Your task to perform on an android device: Open Google Chrome Image 0: 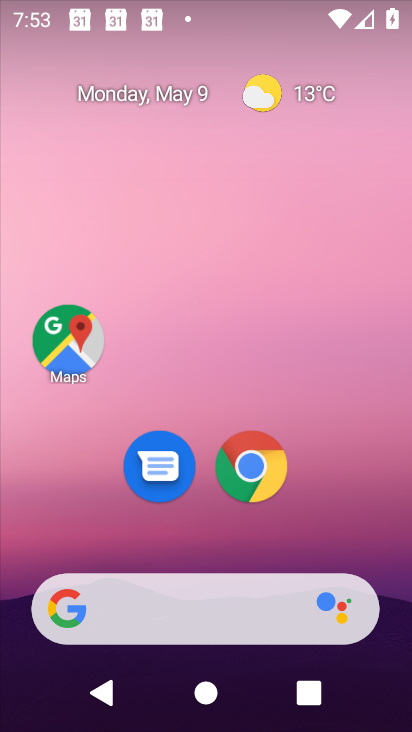
Step 0: drag from (317, 549) to (308, 277)
Your task to perform on an android device: Open Google Chrome Image 1: 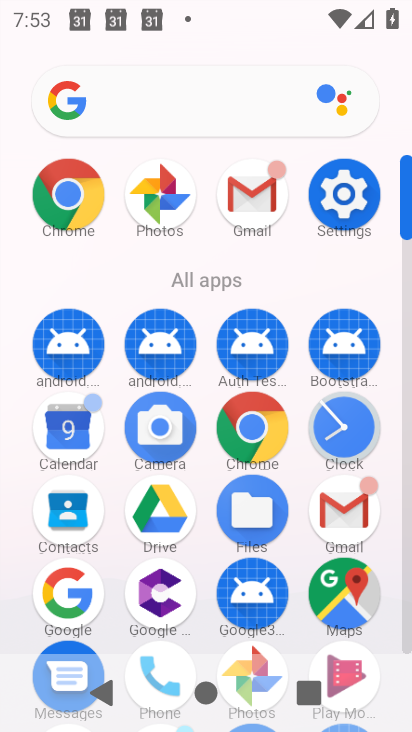
Step 1: click (66, 576)
Your task to perform on an android device: Open Google Chrome Image 2: 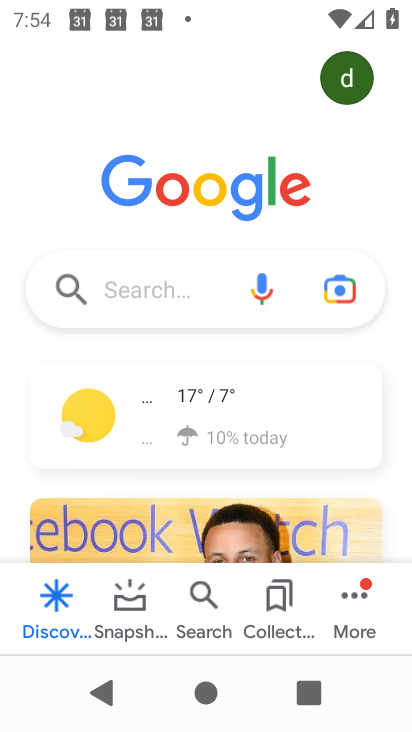
Step 2: task complete